Your task to perform on an android device: remove spam from my inbox in the gmail app Image 0: 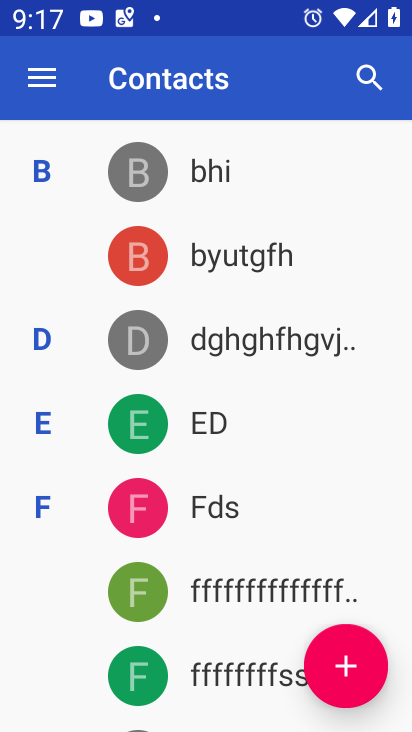
Step 0: press home button
Your task to perform on an android device: remove spam from my inbox in the gmail app Image 1: 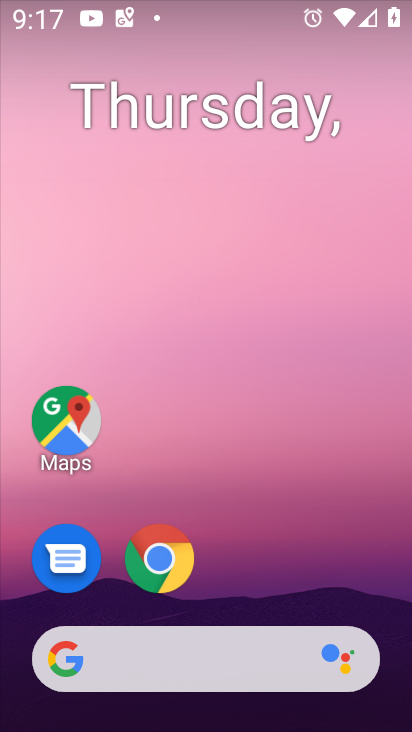
Step 1: drag from (350, 542) to (382, 207)
Your task to perform on an android device: remove spam from my inbox in the gmail app Image 2: 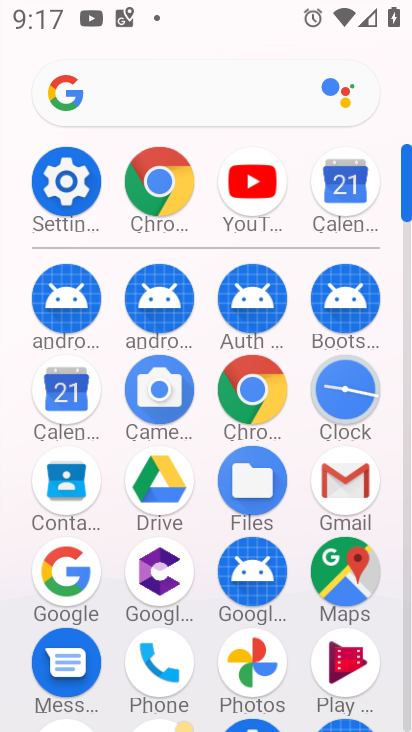
Step 2: click (344, 479)
Your task to perform on an android device: remove spam from my inbox in the gmail app Image 3: 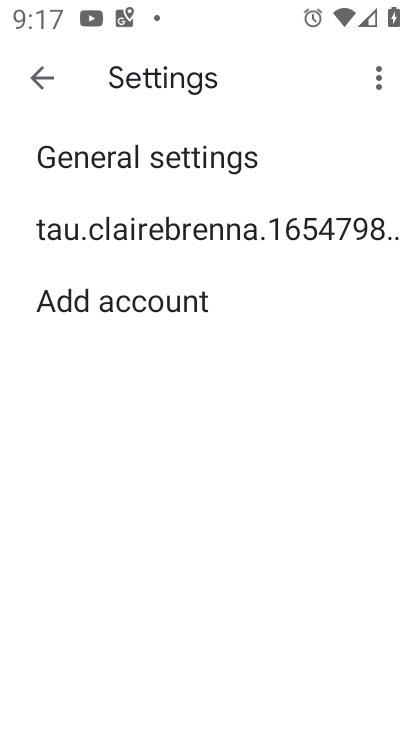
Step 3: press back button
Your task to perform on an android device: remove spam from my inbox in the gmail app Image 4: 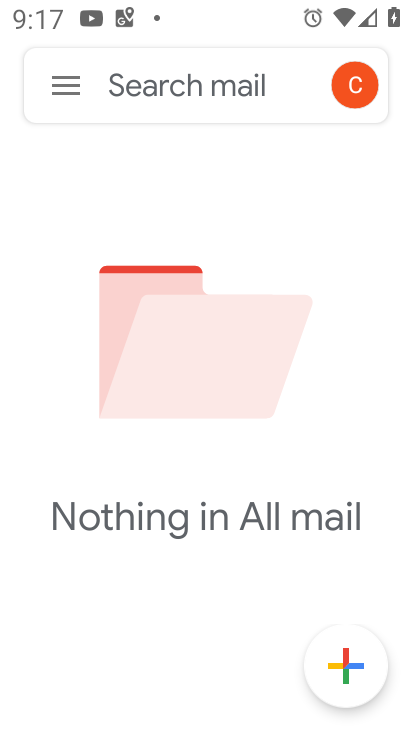
Step 4: click (73, 91)
Your task to perform on an android device: remove spam from my inbox in the gmail app Image 5: 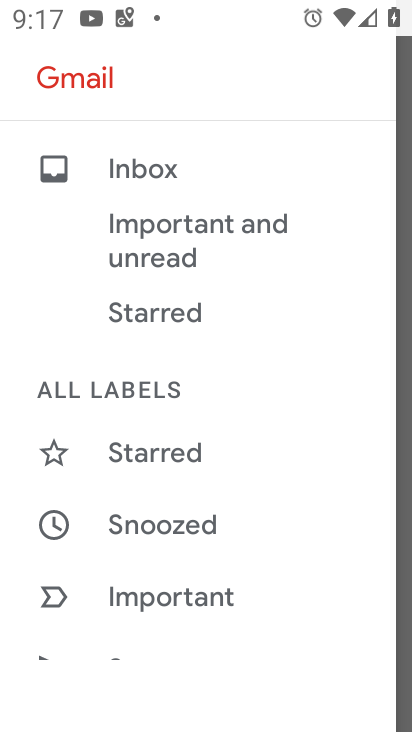
Step 5: drag from (306, 413) to (318, 324)
Your task to perform on an android device: remove spam from my inbox in the gmail app Image 6: 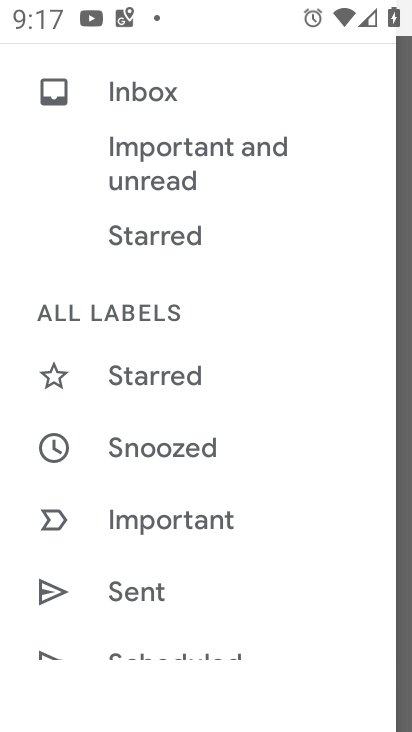
Step 6: drag from (321, 523) to (315, 381)
Your task to perform on an android device: remove spam from my inbox in the gmail app Image 7: 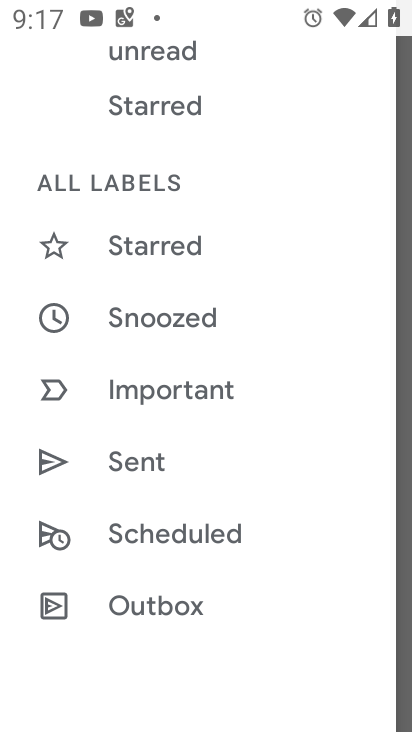
Step 7: drag from (318, 559) to (311, 424)
Your task to perform on an android device: remove spam from my inbox in the gmail app Image 8: 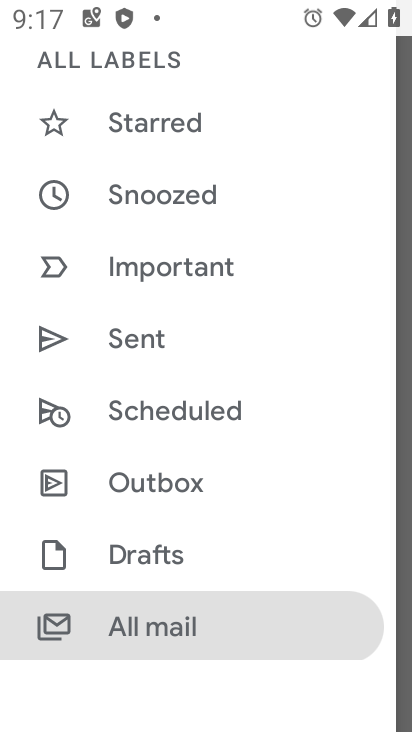
Step 8: drag from (321, 510) to (327, 372)
Your task to perform on an android device: remove spam from my inbox in the gmail app Image 9: 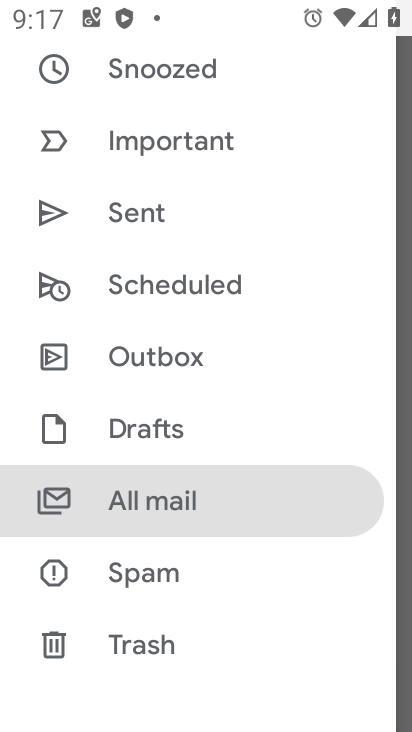
Step 9: drag from (321, 592) to (326, 467)
Your task to perform on an android device: remove spam from my inbox in the gmail app Image 10: 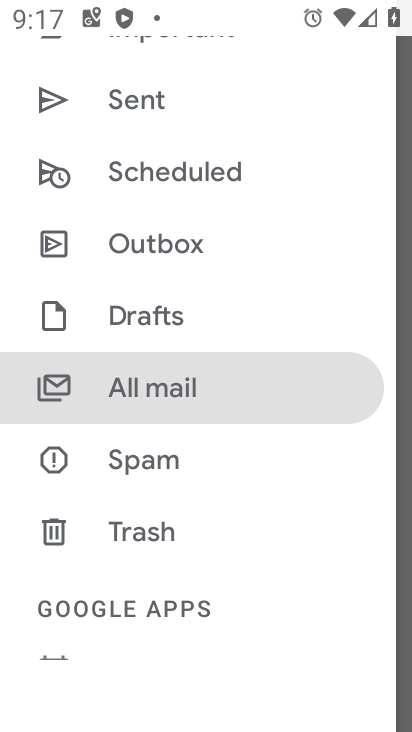
Step 10: click (173, 469)
Your task to perform on an android device: remove spam from my inbox in the gmail app Image 11: 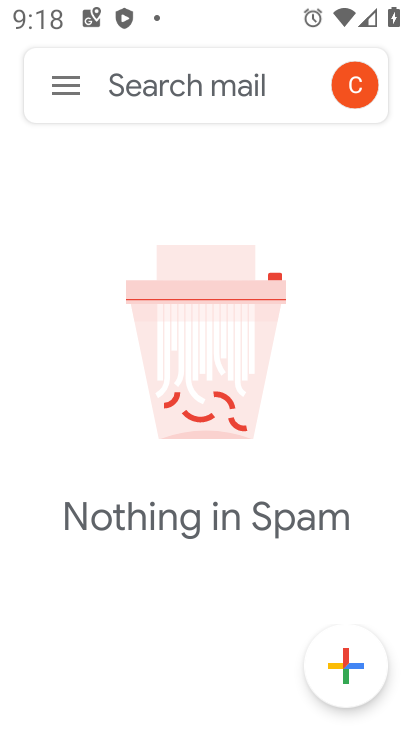
Step 11: task complete